Your task to perform on an android device: toggle wifi Image 0: 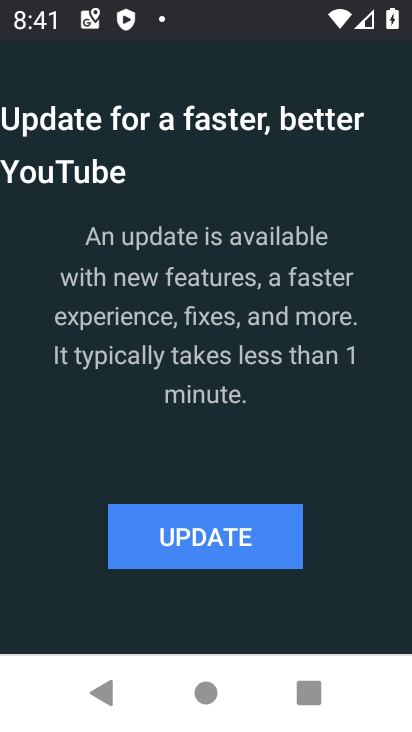
Step 0: drag from (250, 2) to (271, 268)
Your task to perform on an android device: toggle wifi Image 1: 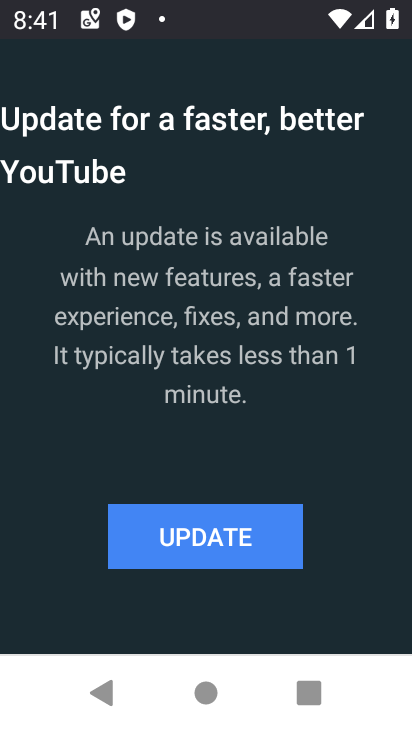
Step 1: drag from (63, 128) to (384, 182)
Your task to perform on an android device: toggle wifi Image 2: 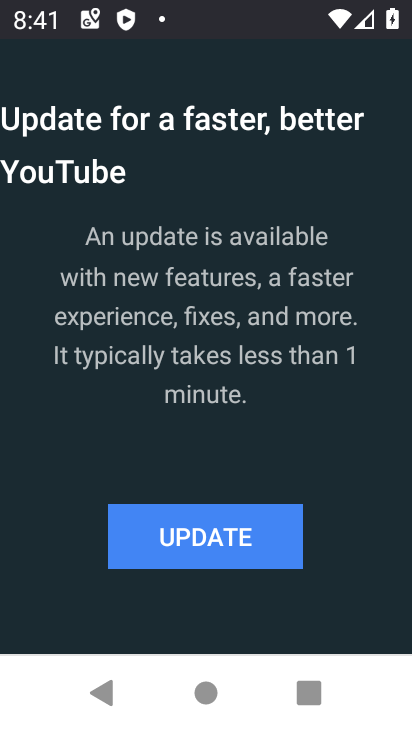
Step 2: drag from (257, 10) to (287, 575)
Your task to perform on an android device: toggle wifi Image 3: 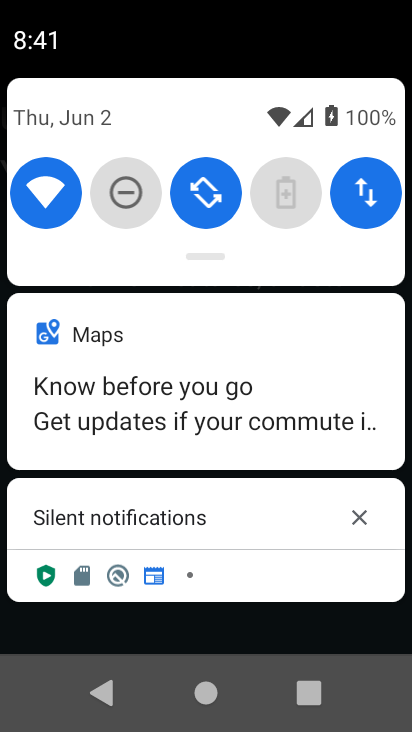
Step 3: click (50, 188)
Your task to perform on an android device: toggle wifi Image 4: 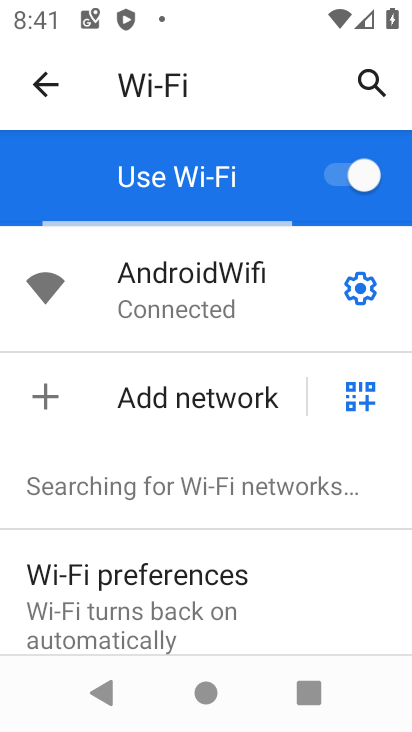
Step 4: click (344, 171)
Your task to perform on an android device: toggle wifi Image 5: 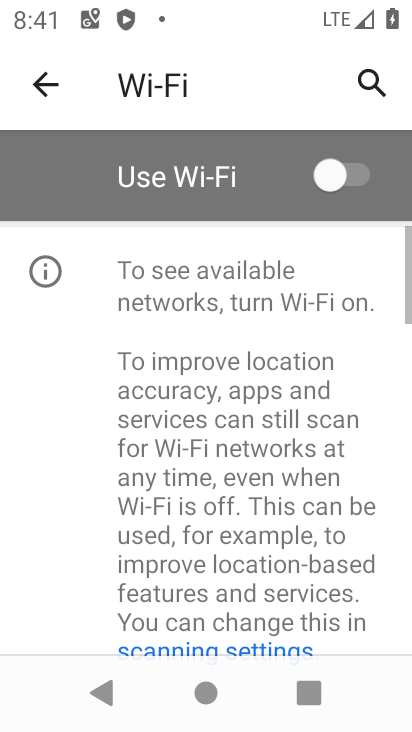
Step 5: task complete